Your task to perform on an android device: toggle priority inbox in the gmail app Image 0: 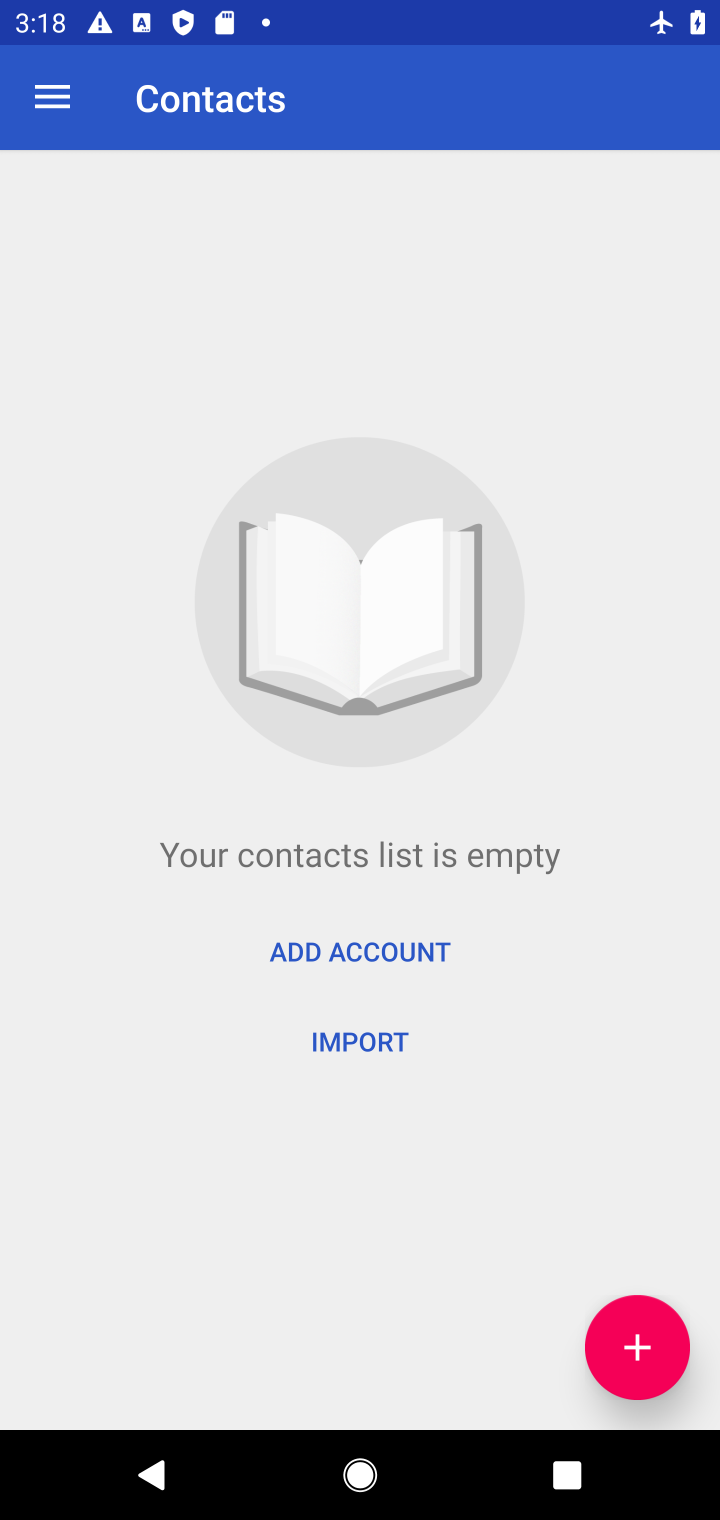
Step 0: press home button
Your task to perform on an android device: toggle priority inbox in the gmail app Image 1: 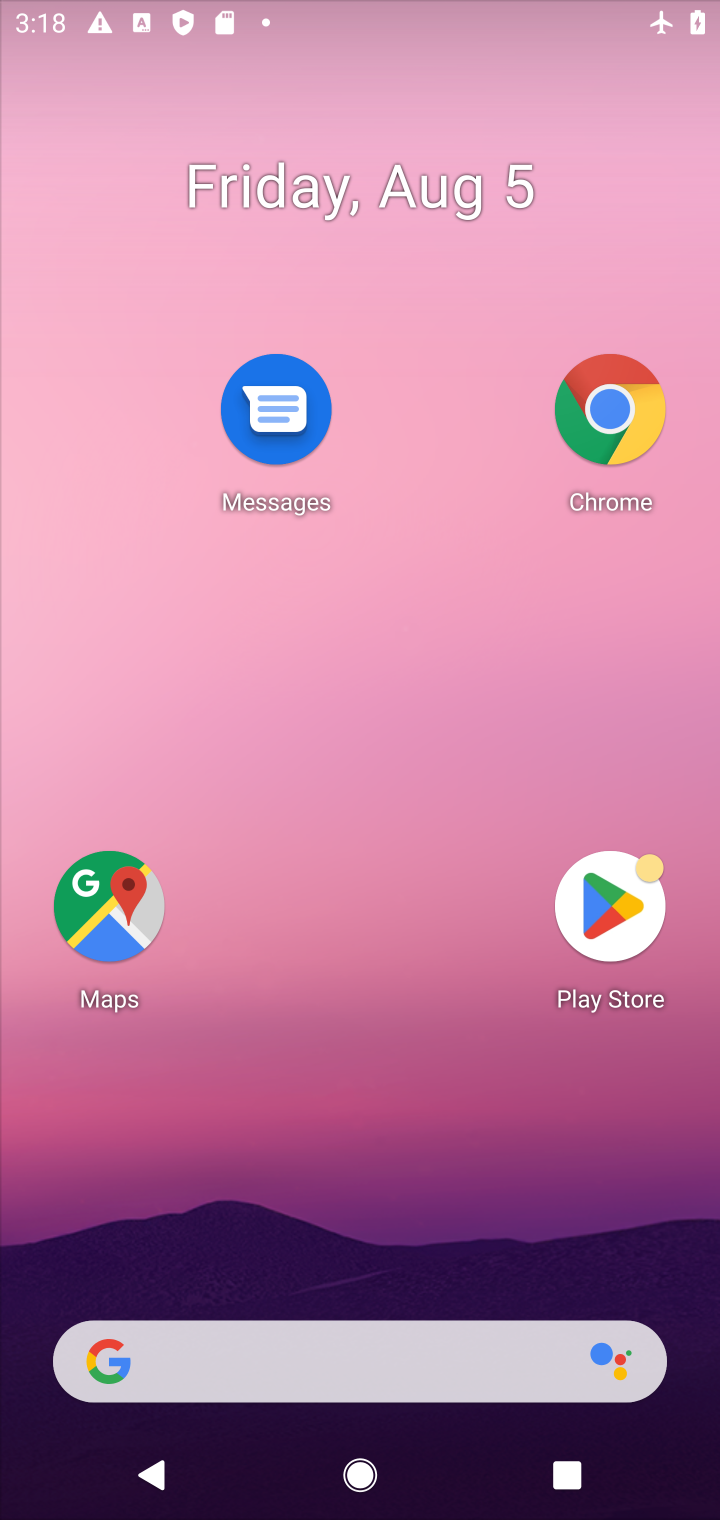
Step 1: drag from (309, 881) to (339, 419)
Your task to perform on an android device: toggle priority inbox in the gmail app Image 2: 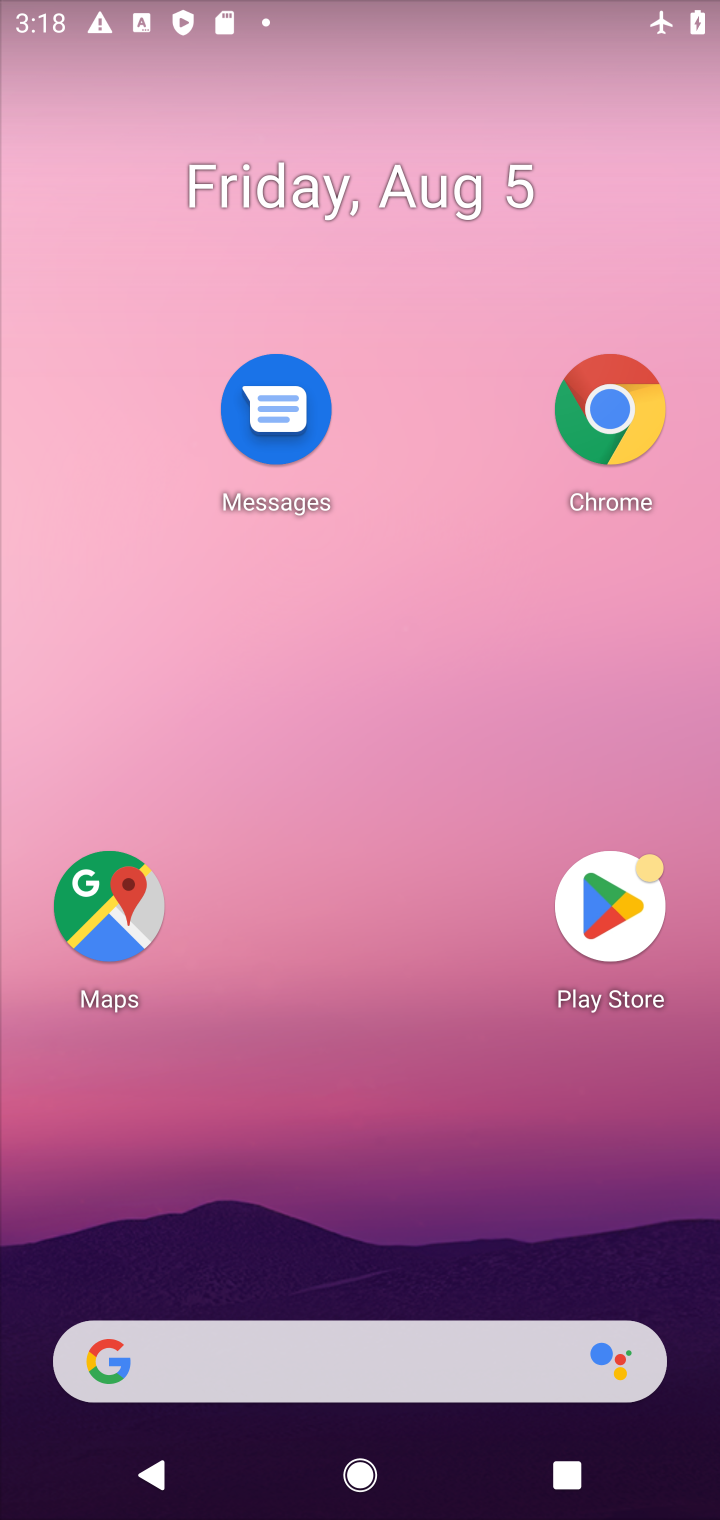
Step 2: drag from (391, 1192) to (391, 368)
Your task to perform on an android device: toggle priority inbox in the gmail app Image 3: 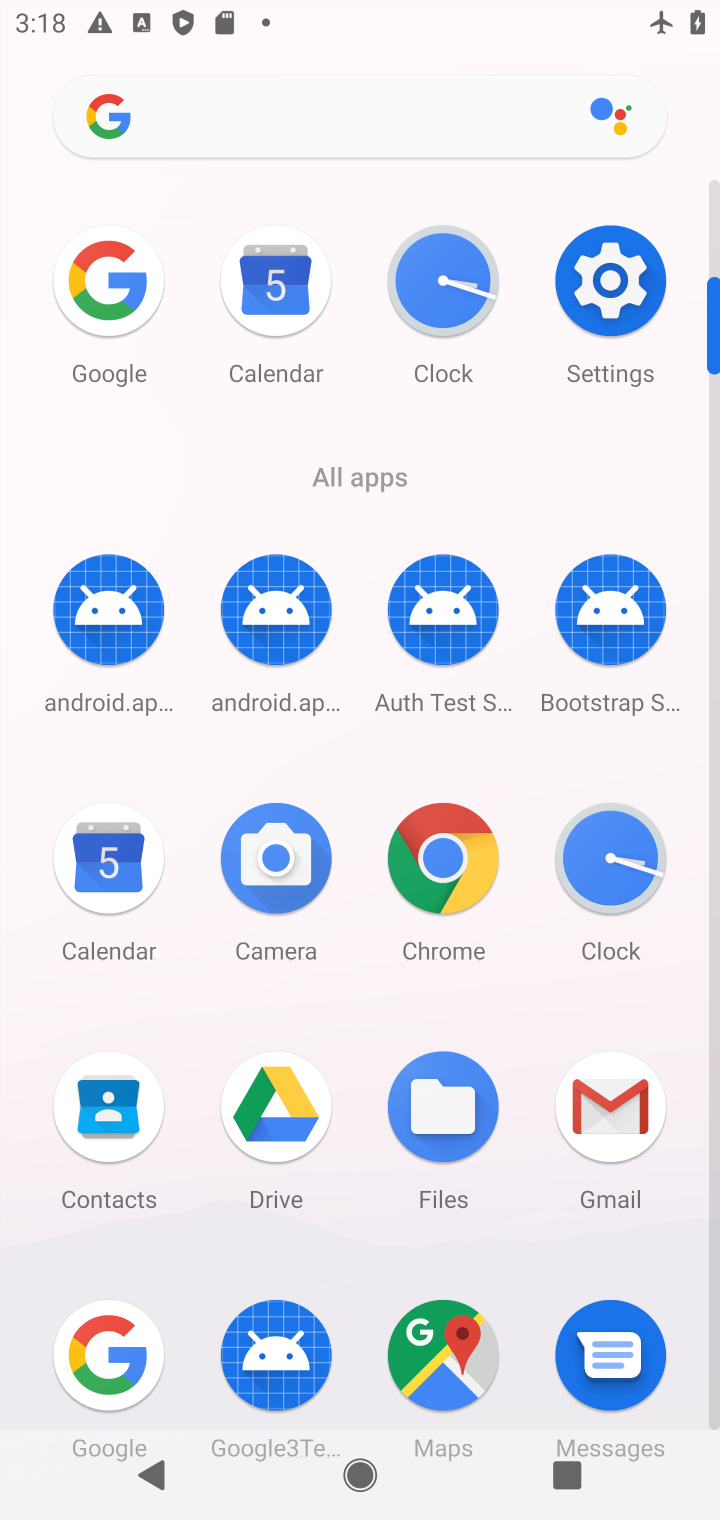
Step 3: click (615, 1091)
Your task to perform on an android device: toggle priority inbox in the gmail app Image 4: 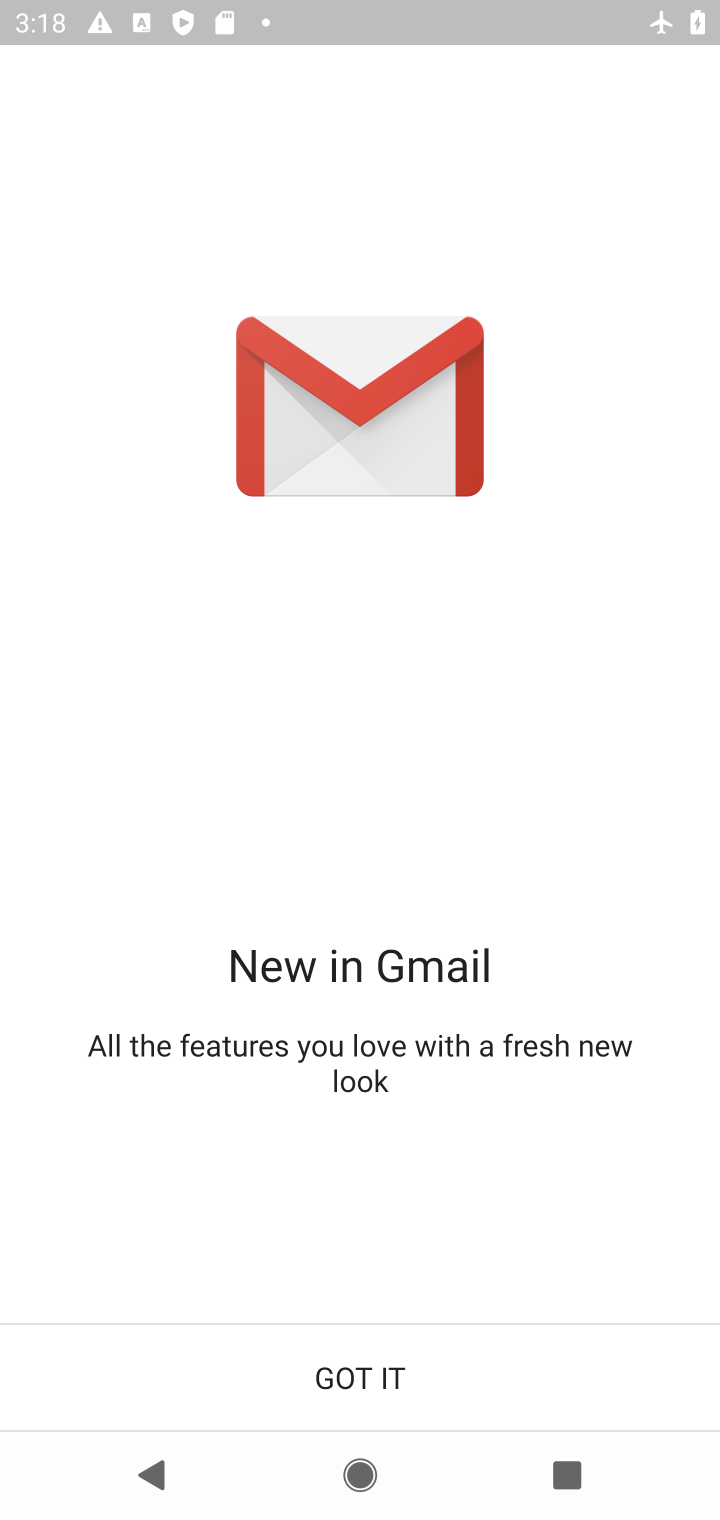
Step 4: click (407, 1351)
Your task to perform on an android device: toggle priority inbox in the gmail app Image 5: 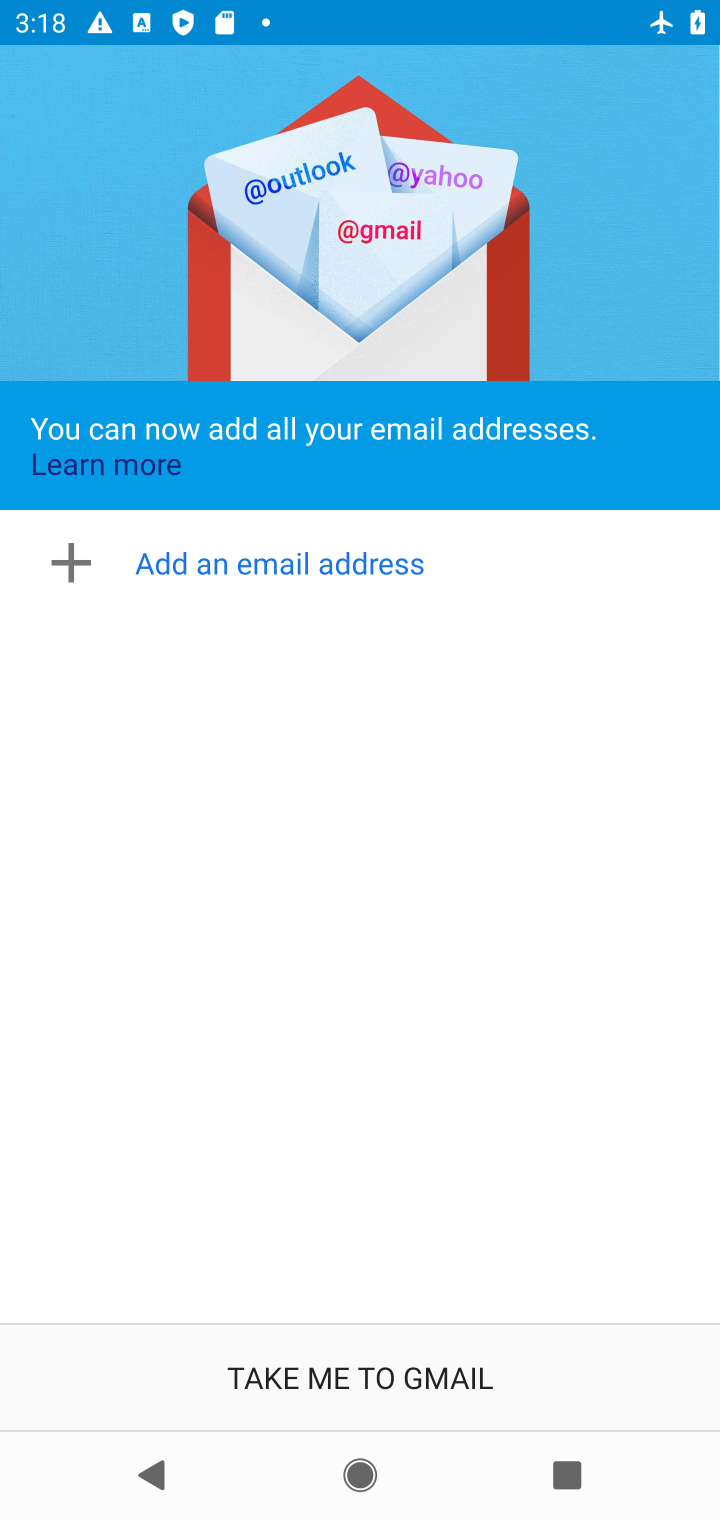
Step 5: click (407, 1351)
Your task to perform on an android device: toggle priority inbox in the gmail app Image 6: 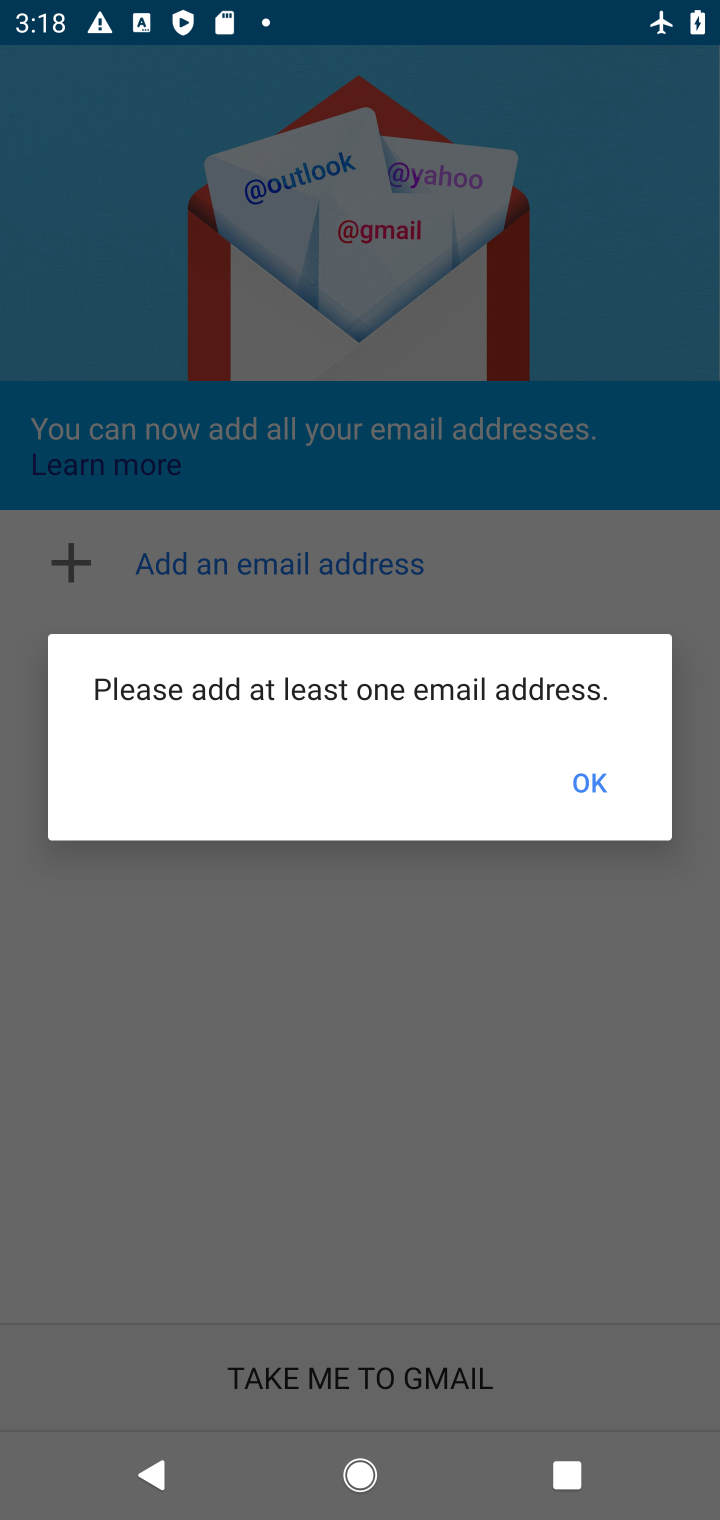
Step 6: click (590, 775)
Your task to perform on an android device: toggle priority inbox in the gmail app Image 7: 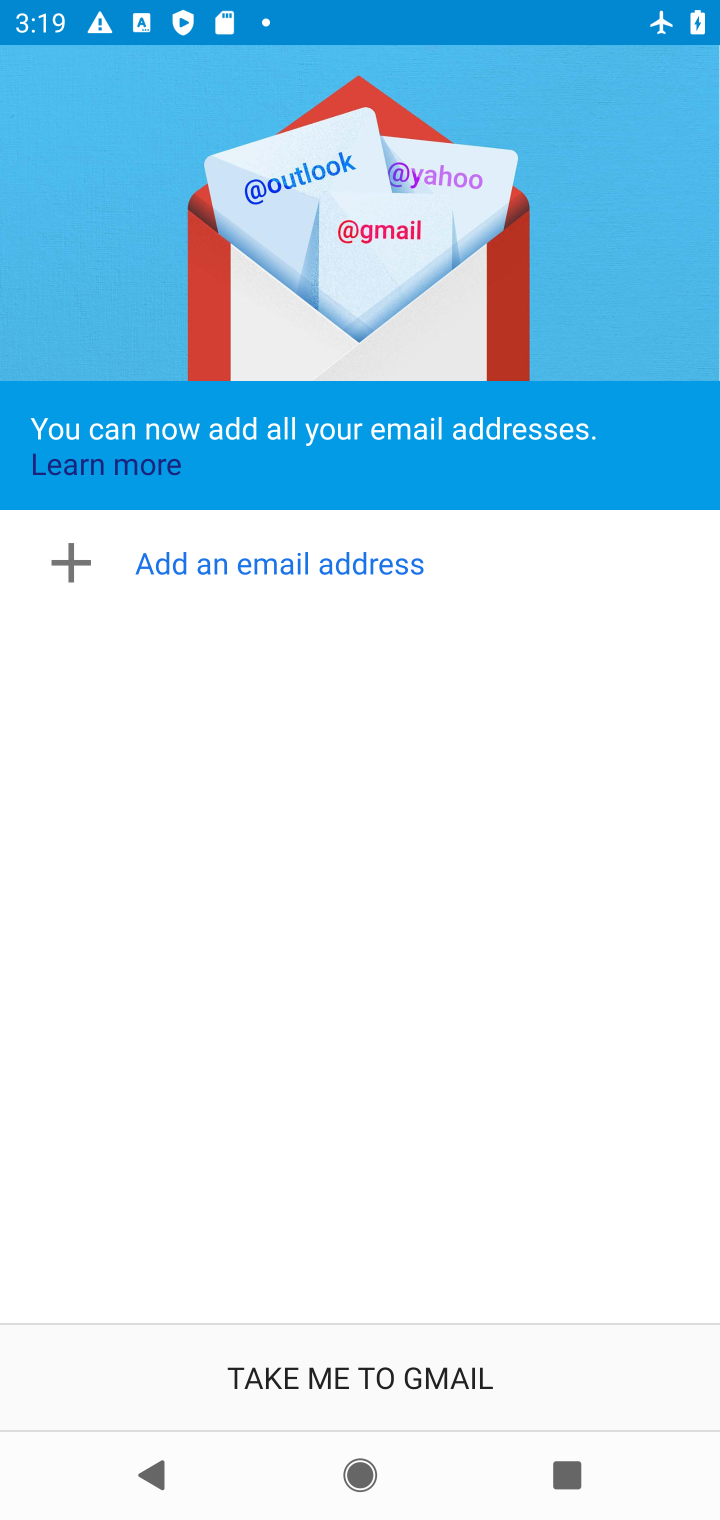
Step 7: click (407, 1360)
Your task to perform on an android device: toggle priority inbox in the gmail app Image 8: 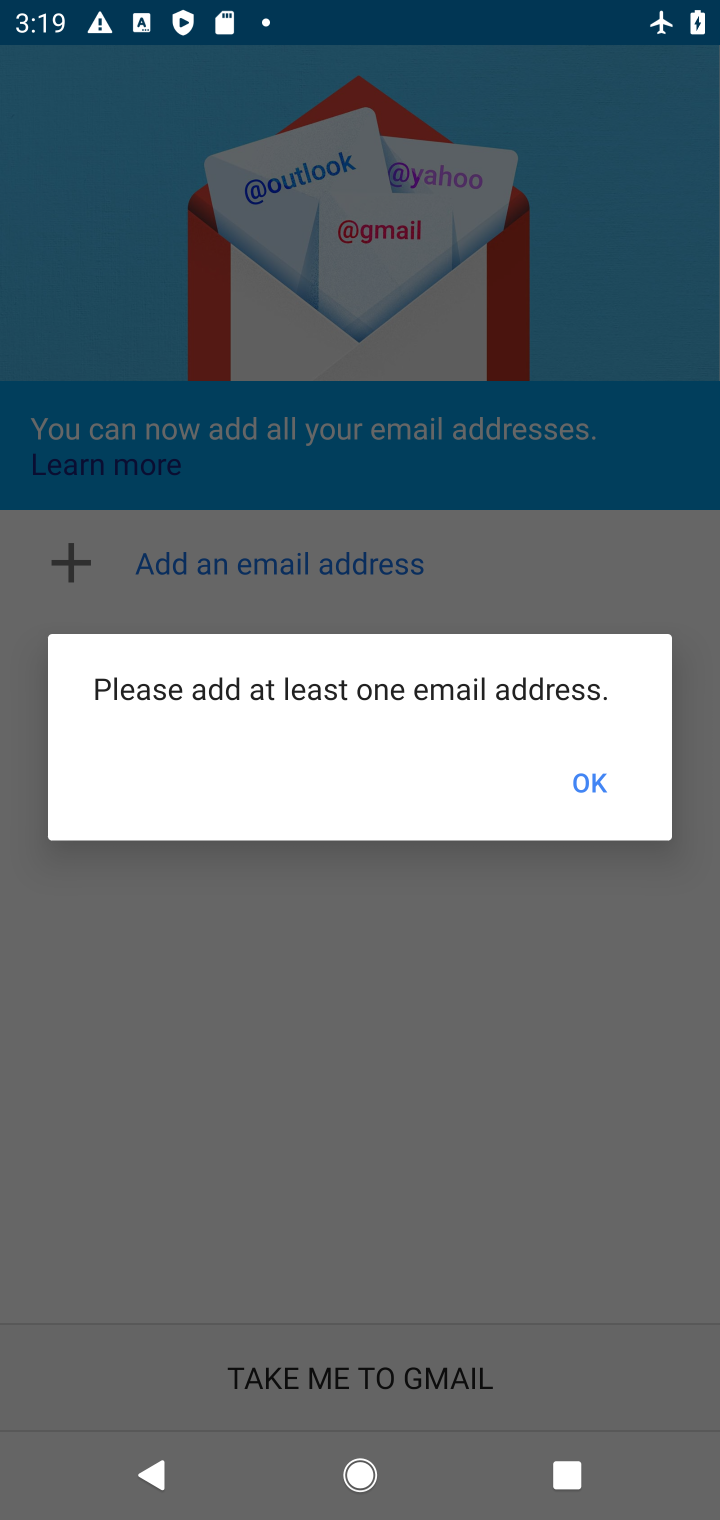
Step 8: click (586, 747)
Your task to perform on an android device: toggle priority inbox in the gmail app Image 9: 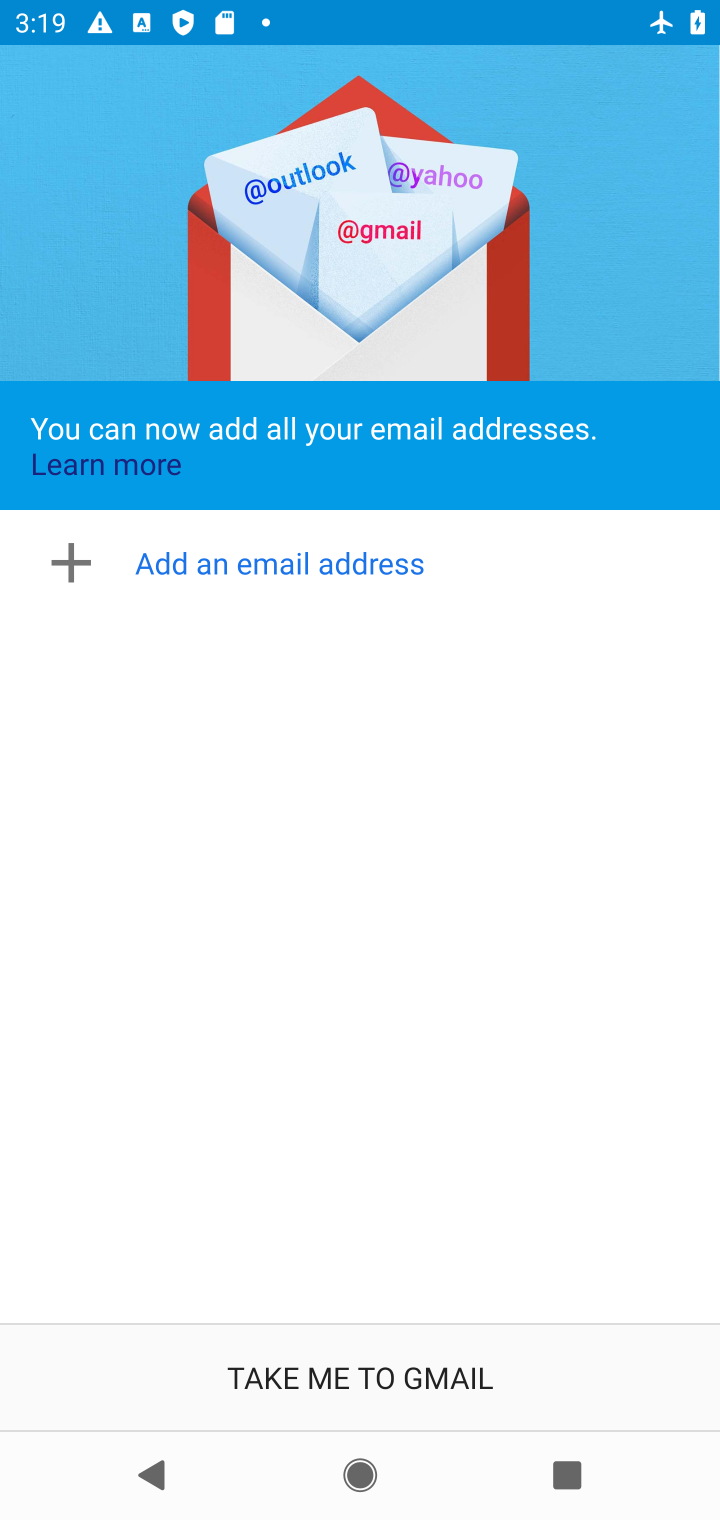
Step 9: task complete